Your task to perform on an android device: toggle javascript in the chrome app Image 0: 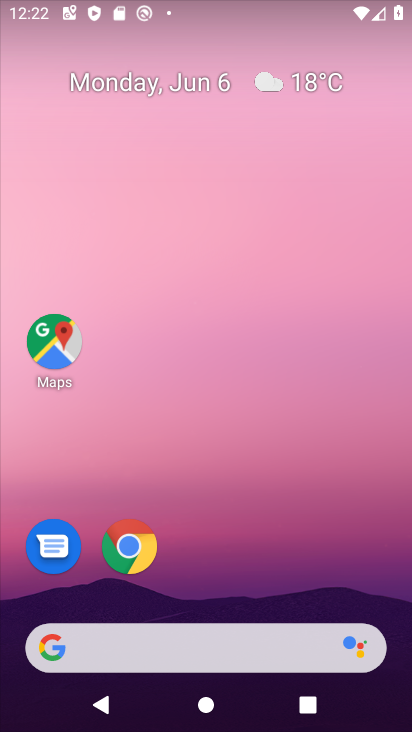
Step 0: click (124, 538)
Your task to perform on an android device: toggle javascript in the chrome app Image 1: 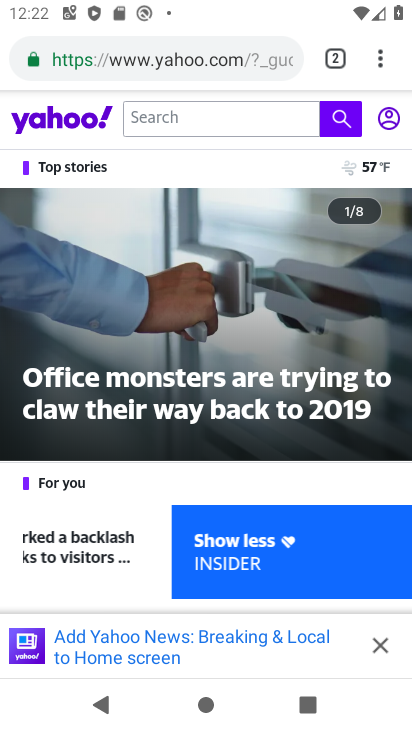
Step 1: click (375, 54)
Your task to perform on an android device: toggle javascript in the chrome app Image 2: 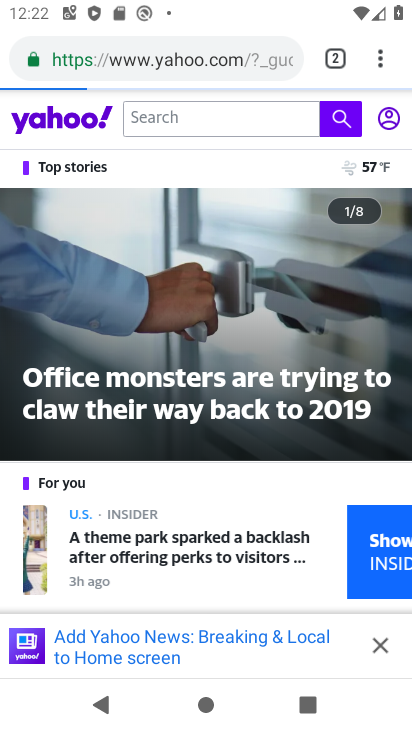
Step 2: drag from (377, 55) to (207, 577)
Your task to perform on an android device: toggle javascript in the chrome app Image 3: 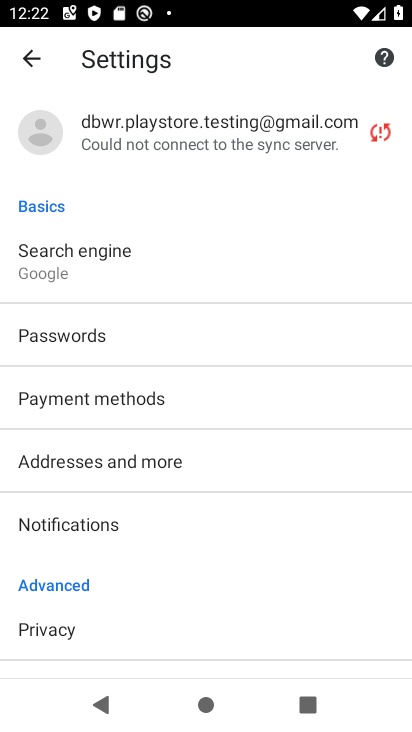
Step 3: drag from (128, 564) to (194, 200)
Your task to perform on an android device: toggle javascript in the chrome app Image 4: 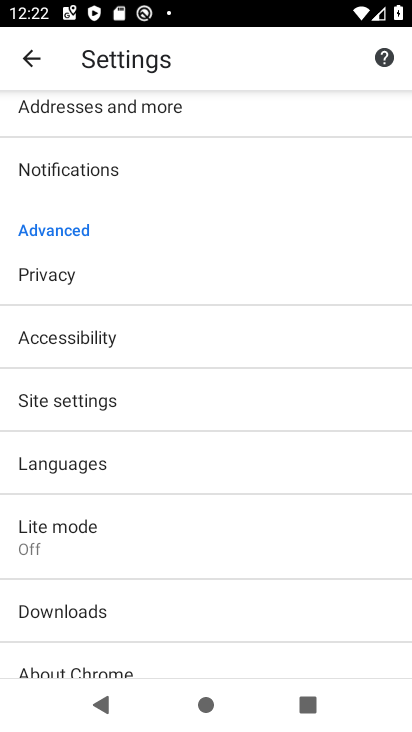
Step 4: click (139, 396)
Your task to perform on an android device: toggle javascript in the chrome app Image 5: 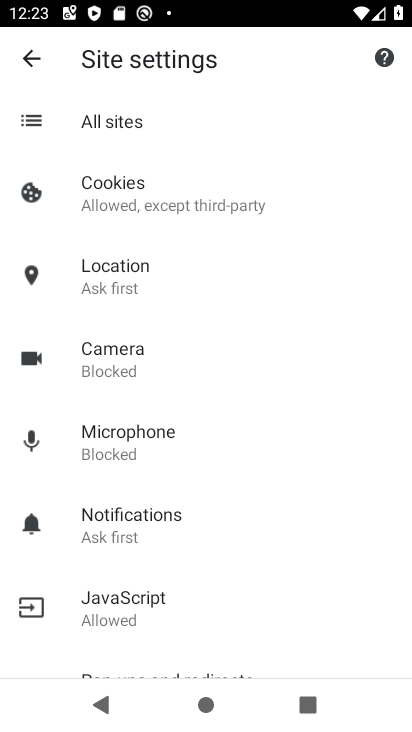
Step 5: click (154, 603)
Your task to perform on an android device: toggle javascript in the chrome app Image 6: 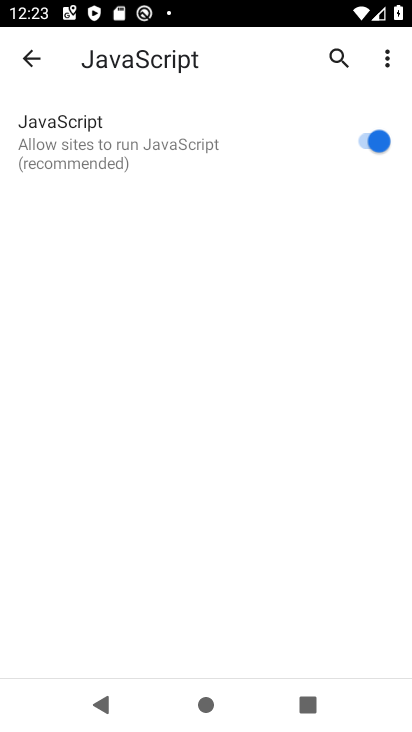
Step 6: click (368, 135)
Your task to perform on an android device: toggle javascript in the chrome app Image 7: 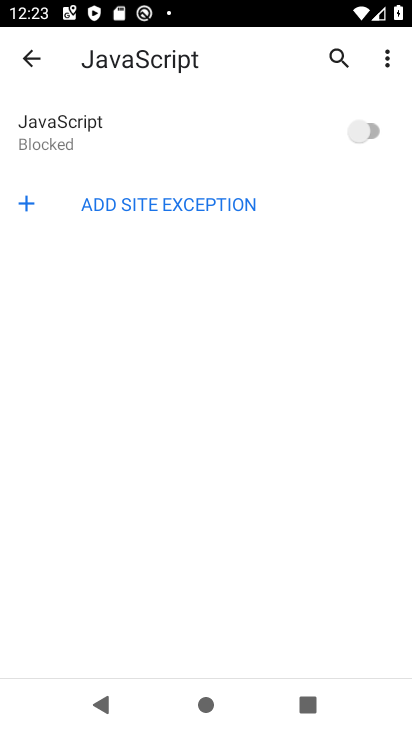
Step 7: task complete